Your task to perform on an android device: check storage Image 0: 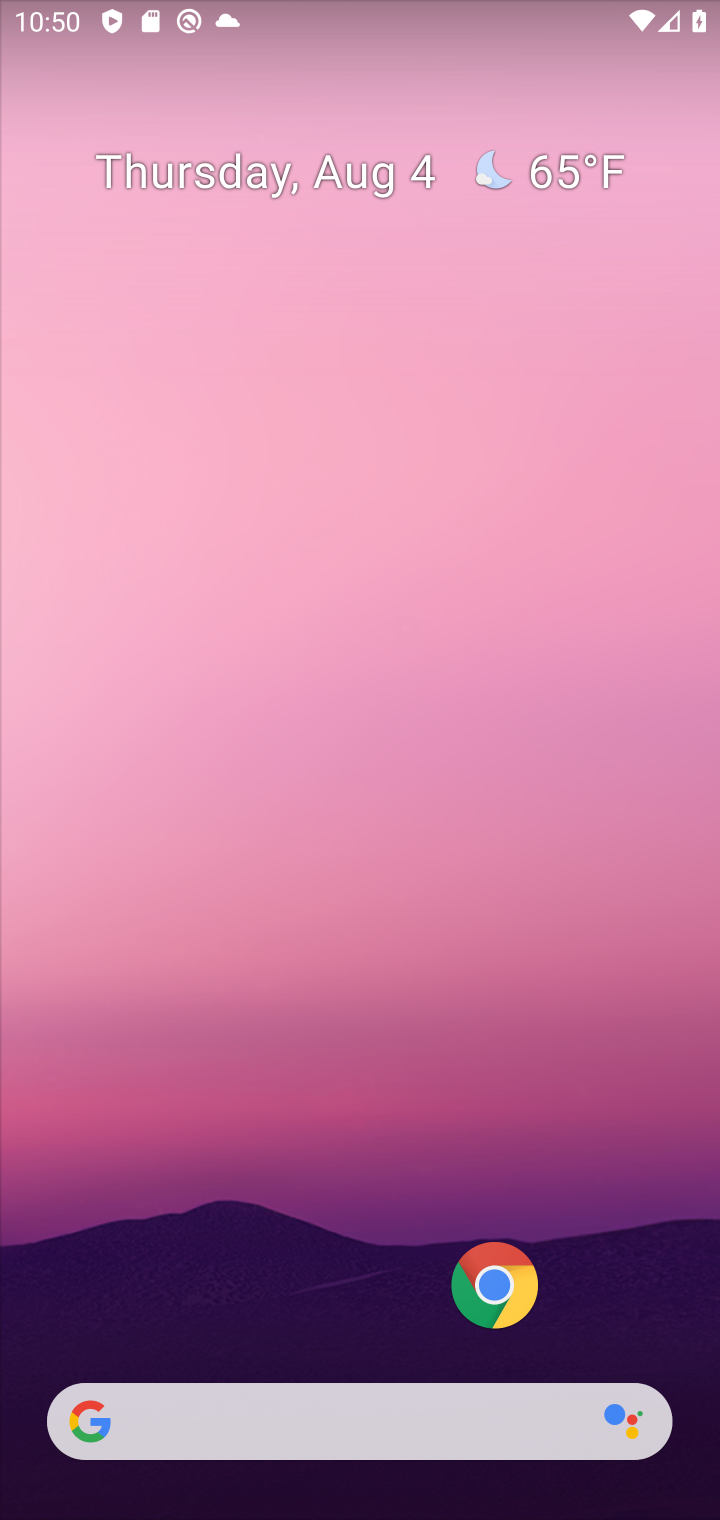
Step 0: press home button
Your task to perform on an android device: check storage Image 1: 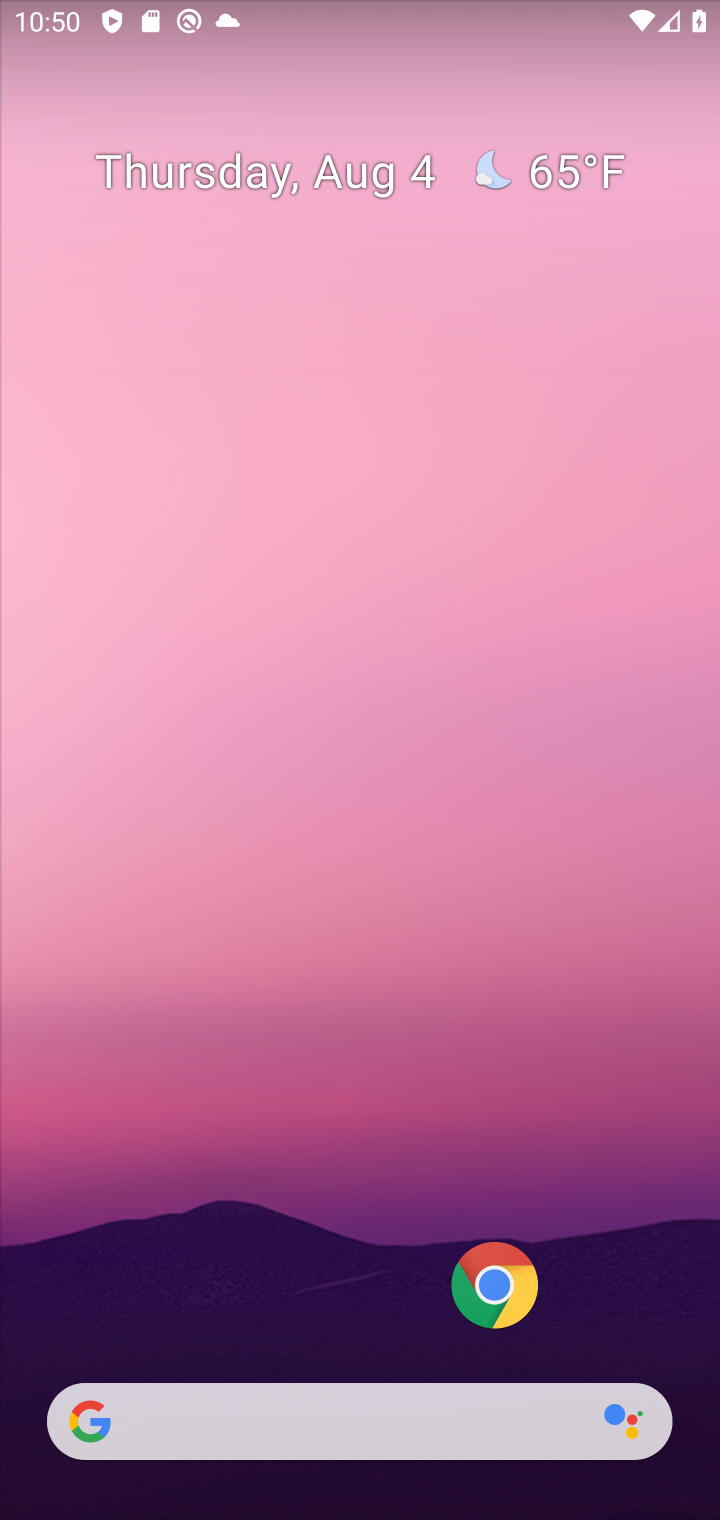
Step 1: drag from (286, 1314) to (572, 25)
Your task to perform on an android device: check storage Image 2: 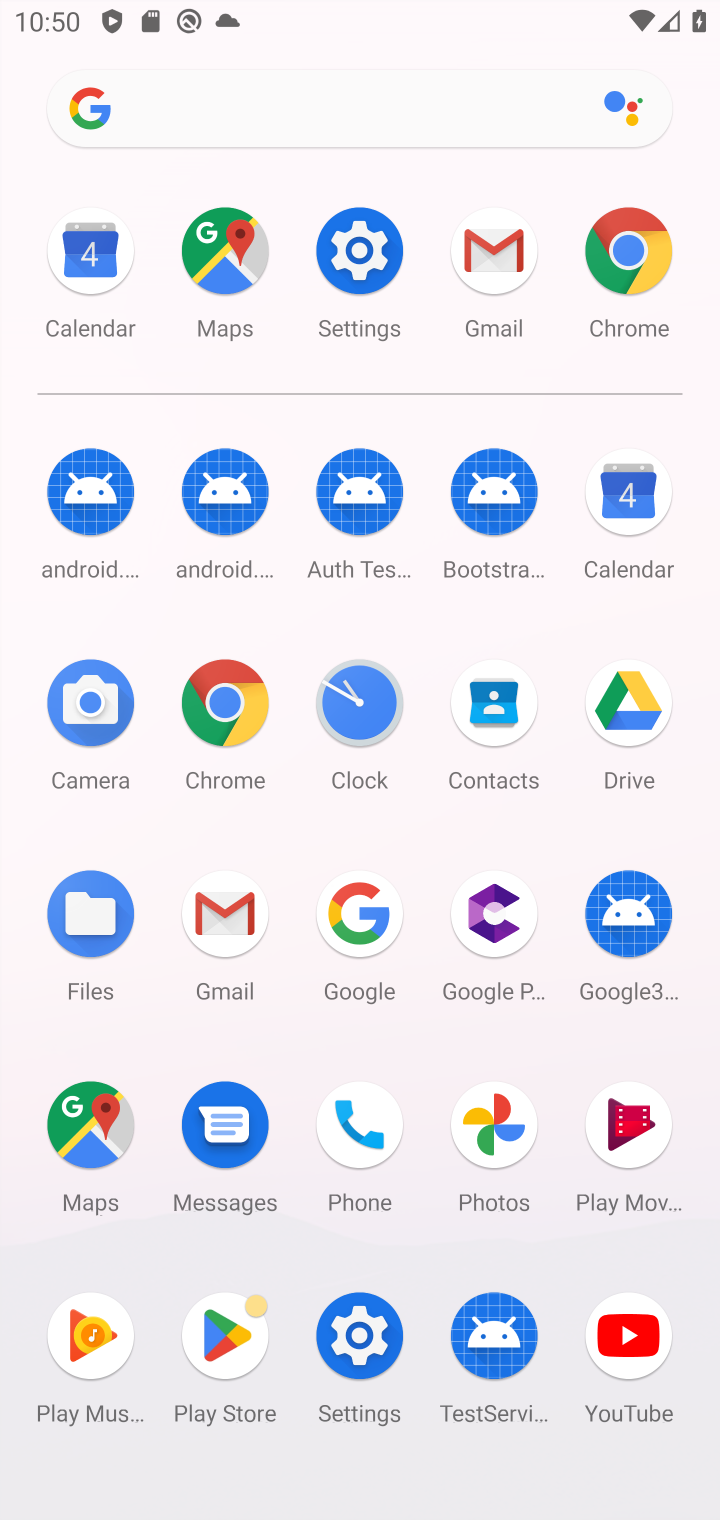
Step 2: click (356, 1320)
Your task to perform on an android device: check storage Image 3: 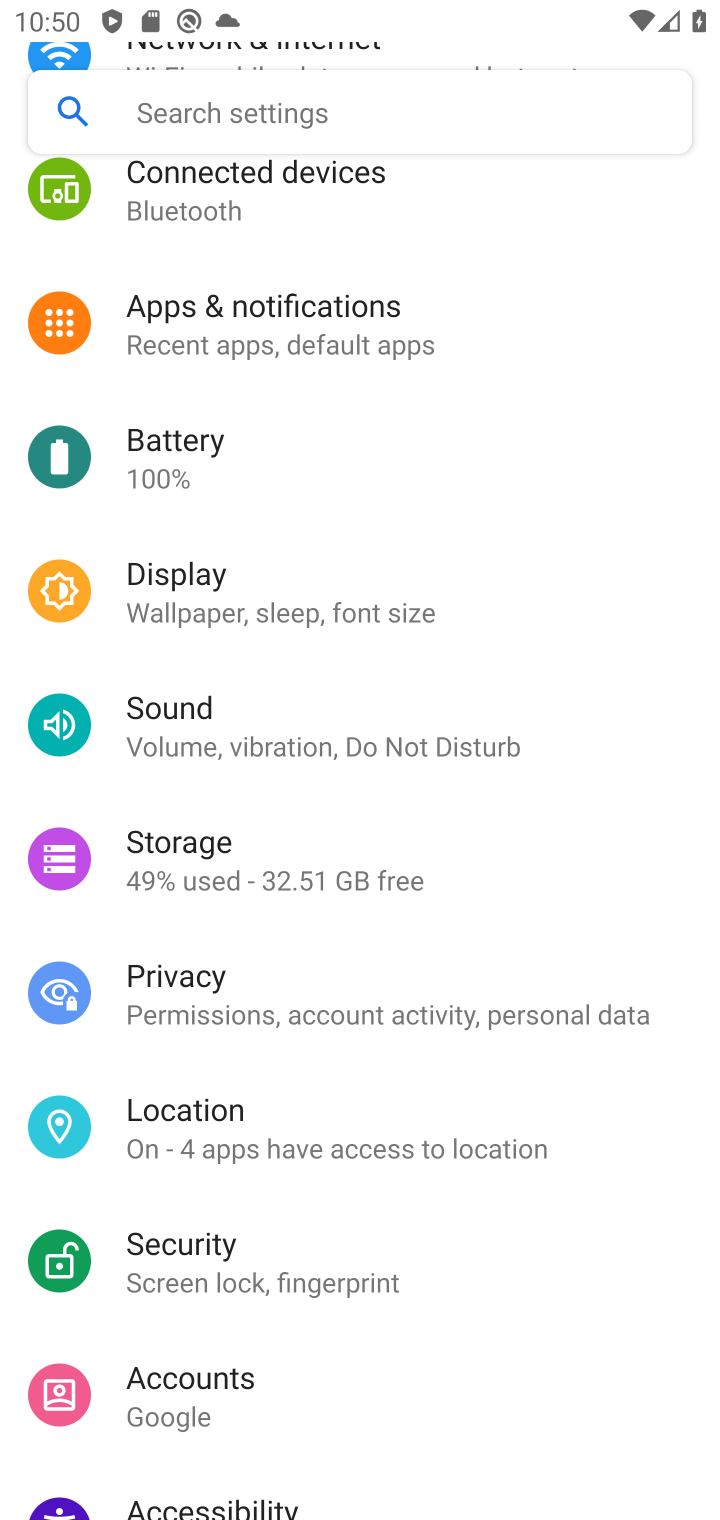
Step 3: click (189, 859)
Your task to perform on an android device: check storage Image 4: 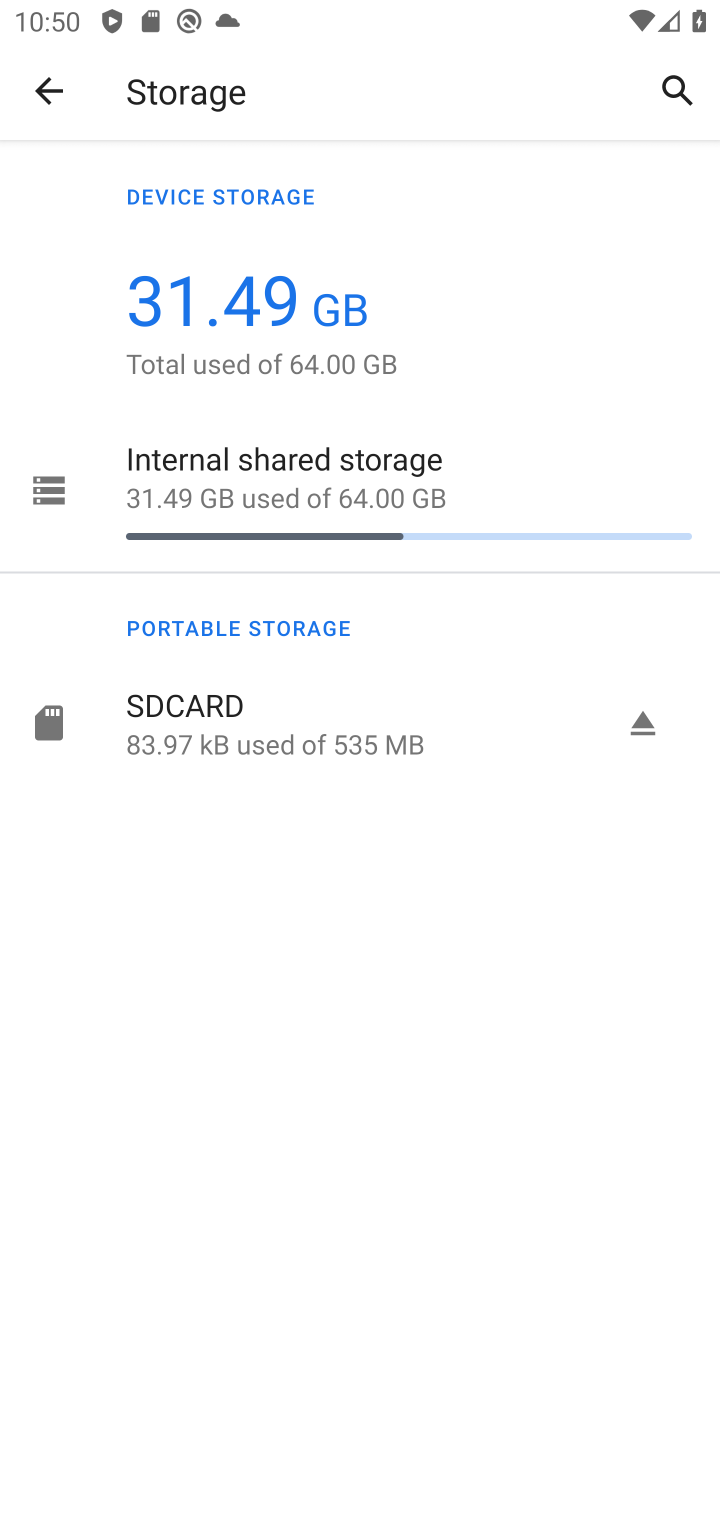
Step 4: task complete